Your task to perform on an android device: toggle improve location accuracy Image 0: 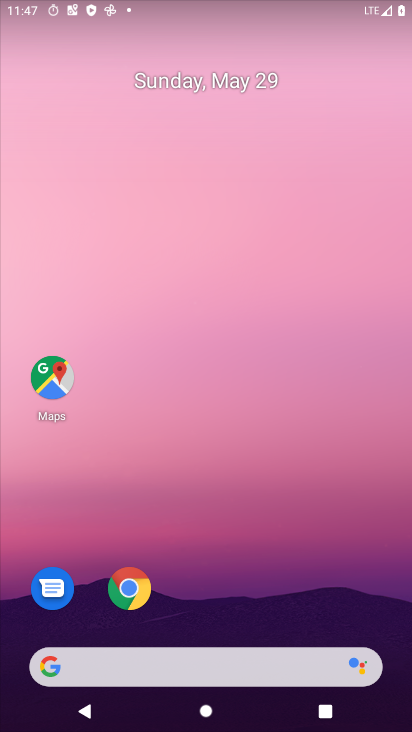
Step 0: drag from (226, 597) to (251, 200)
Your task to perform on an android device: toggle improve location accuracy Image 1: 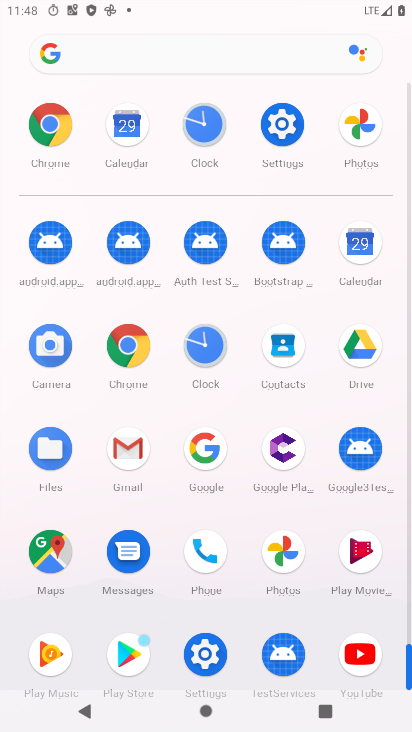
Step 1: click (210, 658)
Your task to perform on an android device: toggle improve location accuracy Image 2: 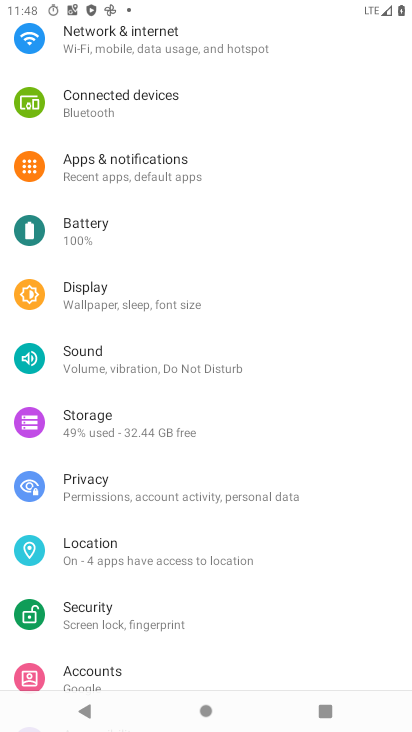
Step 2: click (127, 560)
Your task to perform on an android device: toggle improve location accuracy Image 3: 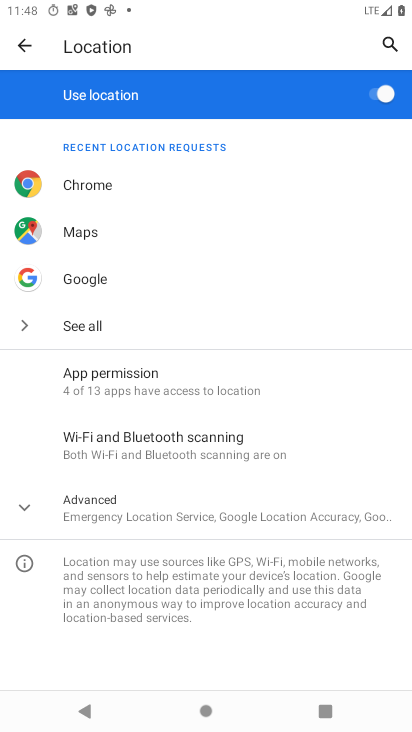
Step 3: click (214, 517)
Your task to perform on an android device: toggle improve location accuracy Image 4: 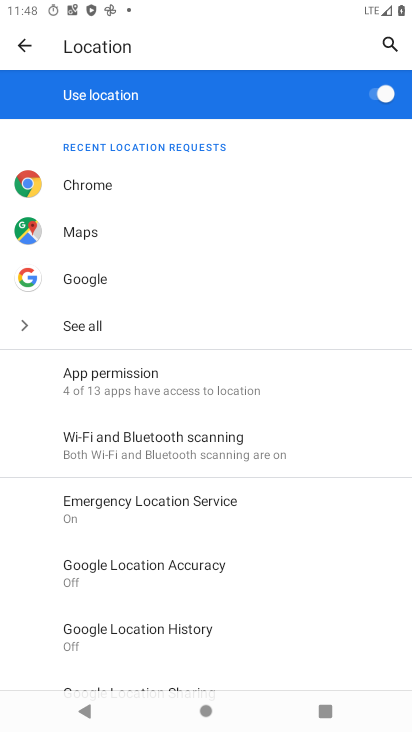
Step 4: click (245, 583)
Your task to perform on an android device: toggle improve location accuracy Image 5: 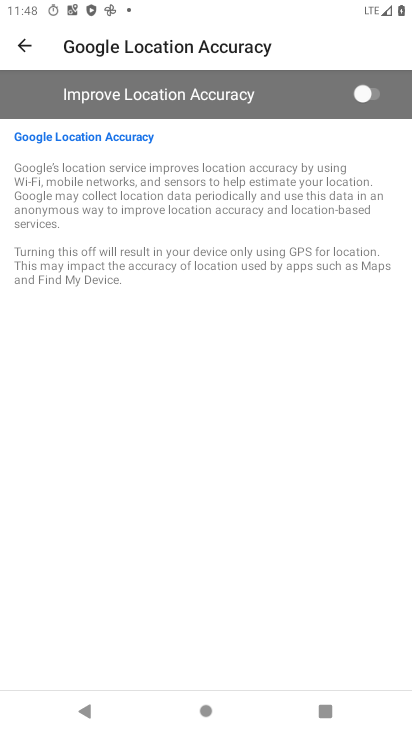
Step 5: click (361, 104)
Your task to perform on an android device: toggle improve location accuracy Image 6: 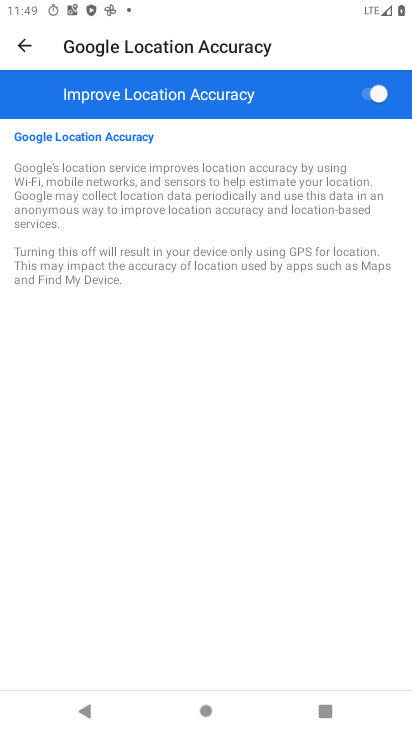
Step 6: task complete